Your task to perform on an android device: Open Maps and search for coffee Image 0: 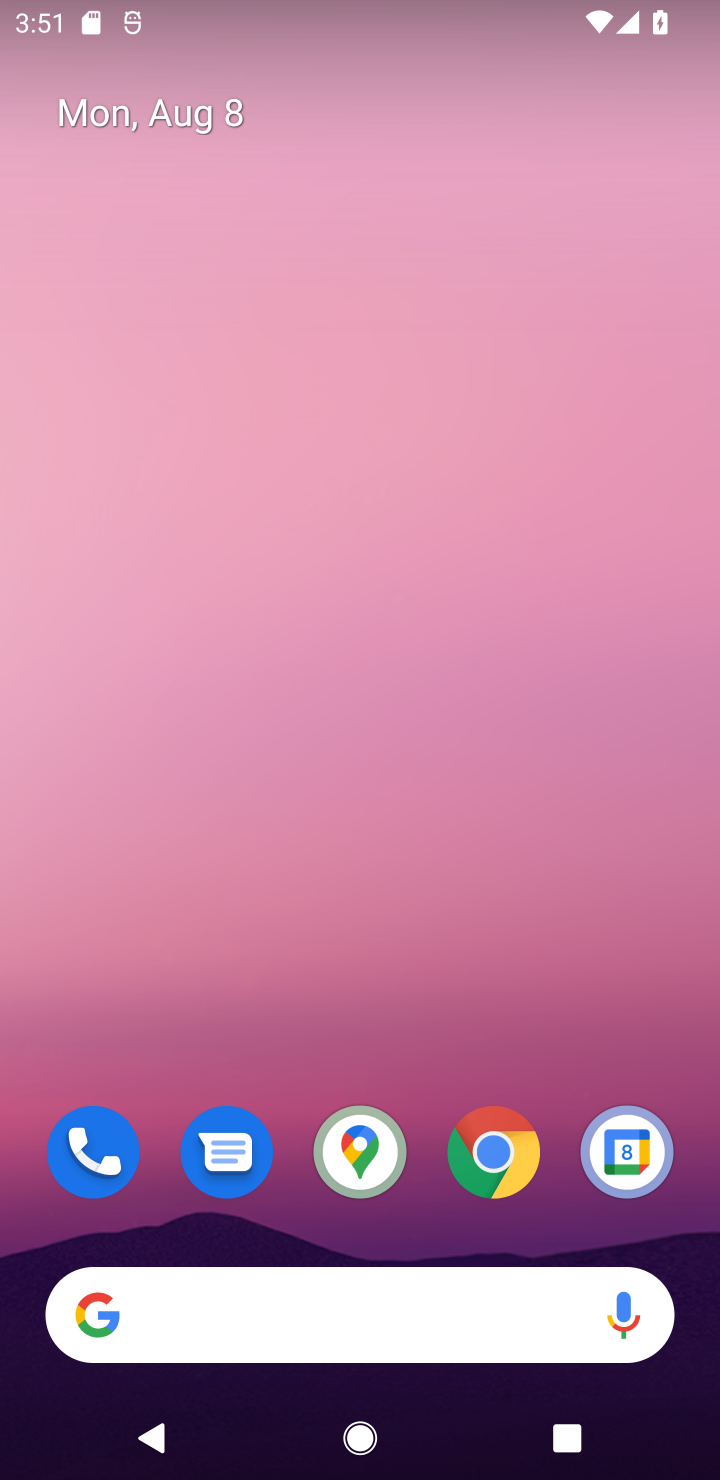
Step 0: click (339, 1159)
Your task to perform on an android device: Open Maps and search for coffee Image 1: 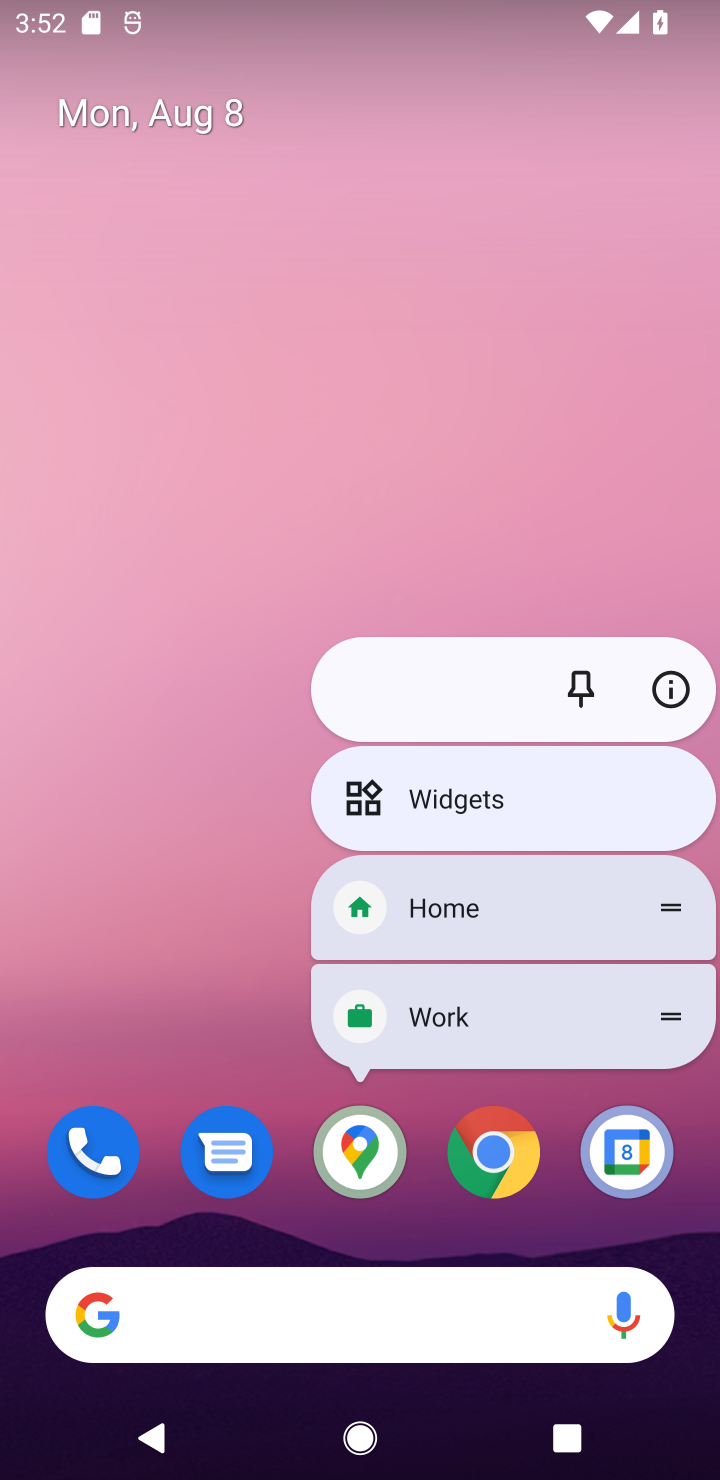
Step 1: click (341, 1153)
Your task to perform on an android device: Open Maps and search for coffee Image 2: 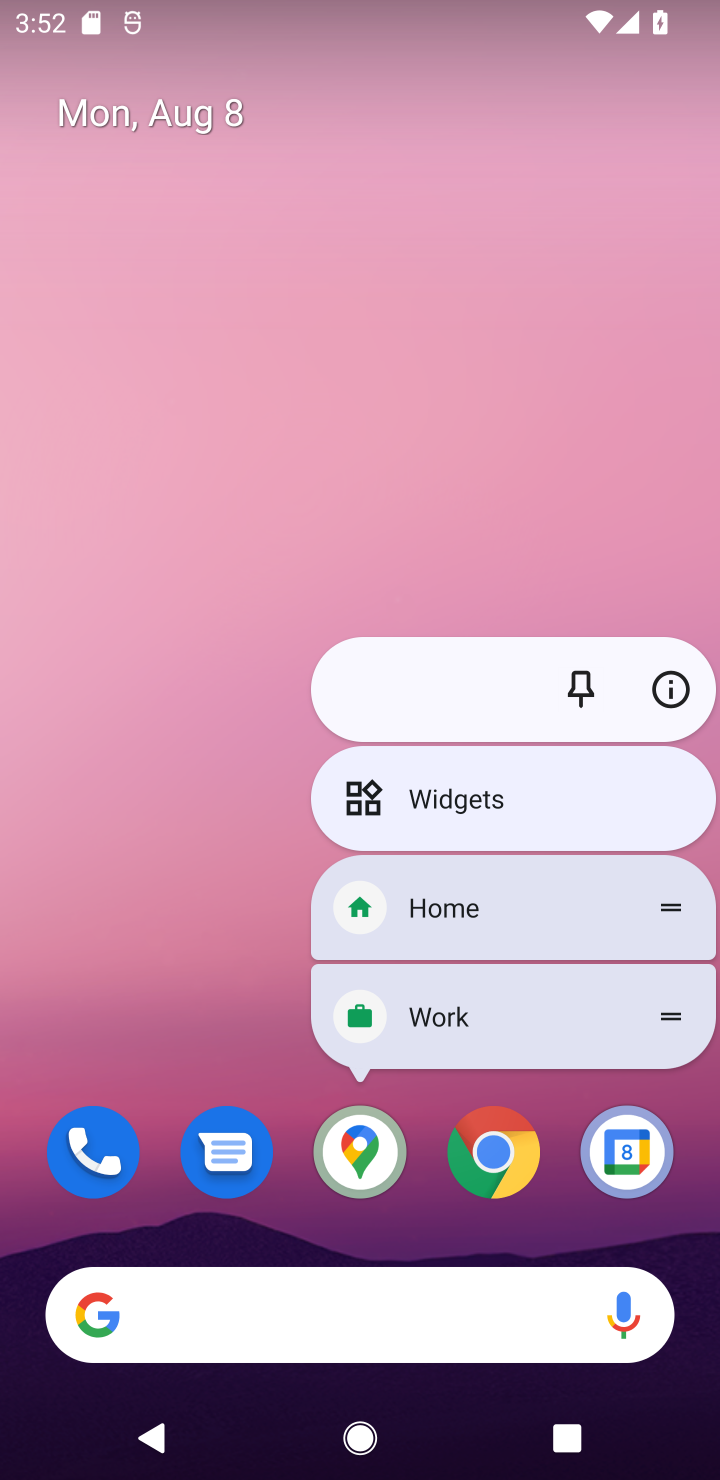
Step 2: click (374, 1168)
Your task to perform on an android device: Open Maps and search for coffee Image 3: 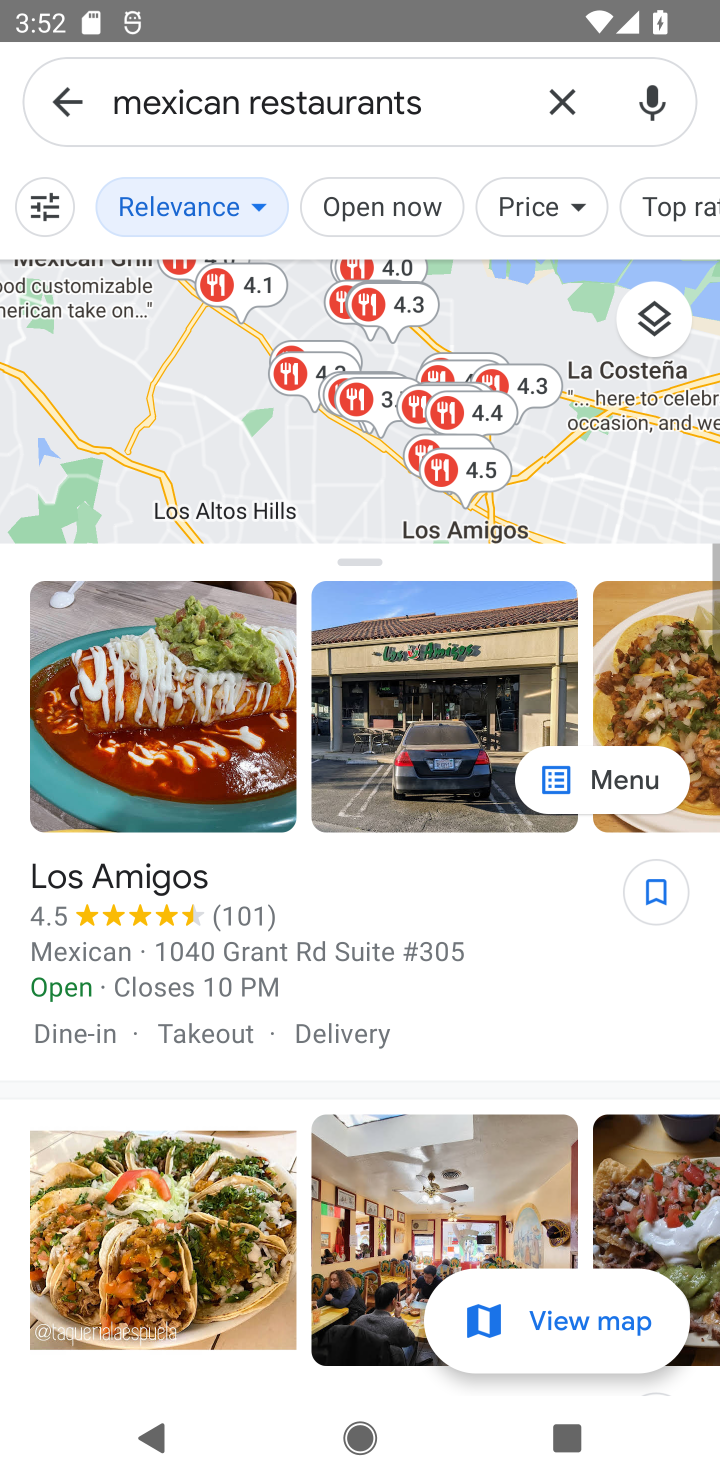
Step 3: click (574, 88)
Your task to perform on an android device: Open Maps and search for coffee Image 4: 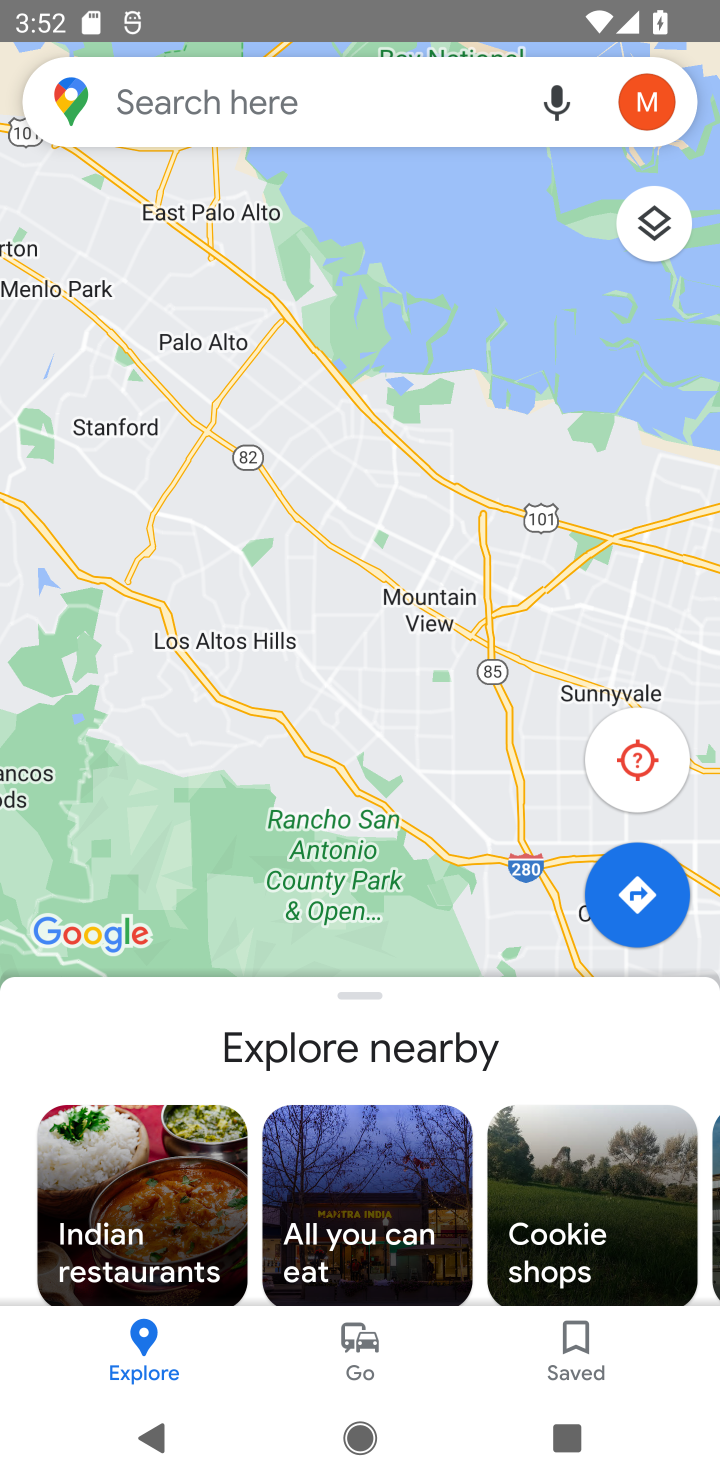
Step 4: click (223, 112)
Your task to perform on an android device: Open Maps and search for coffee Image 5: 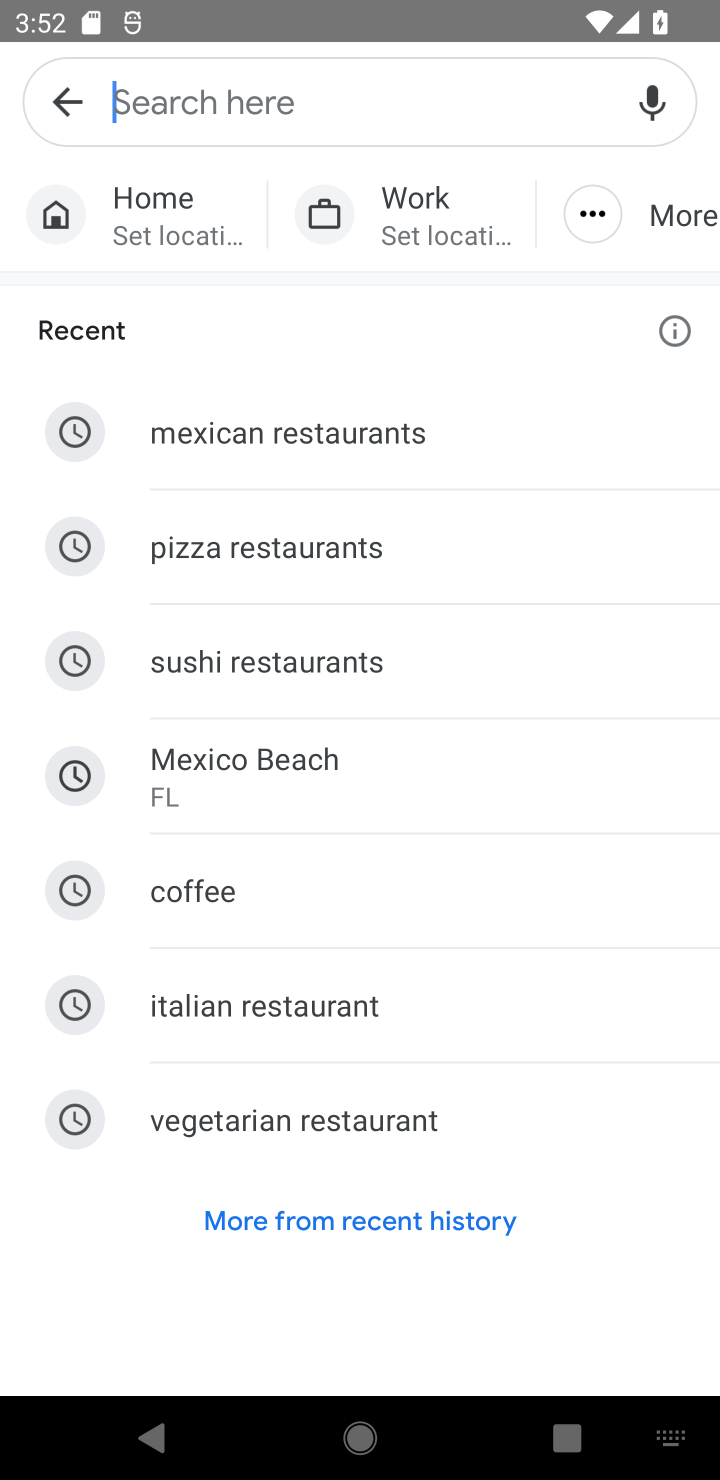
Step 5: type "coffee"
Your task to perform on an android device: Open Maps and search for coffee Image 6: 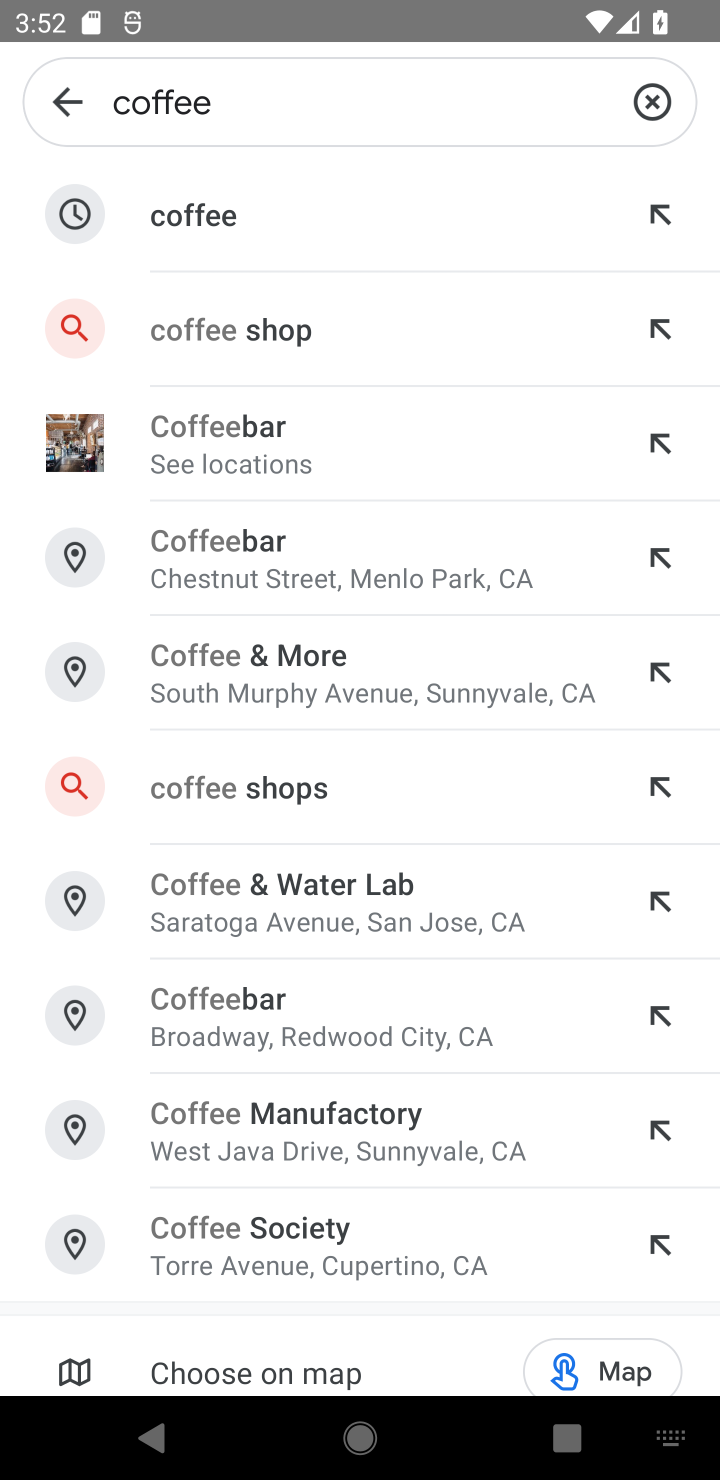
Step 6: click (250, 198)
Your task to perform on an android device: Open Maps and search for coffee Image 7: 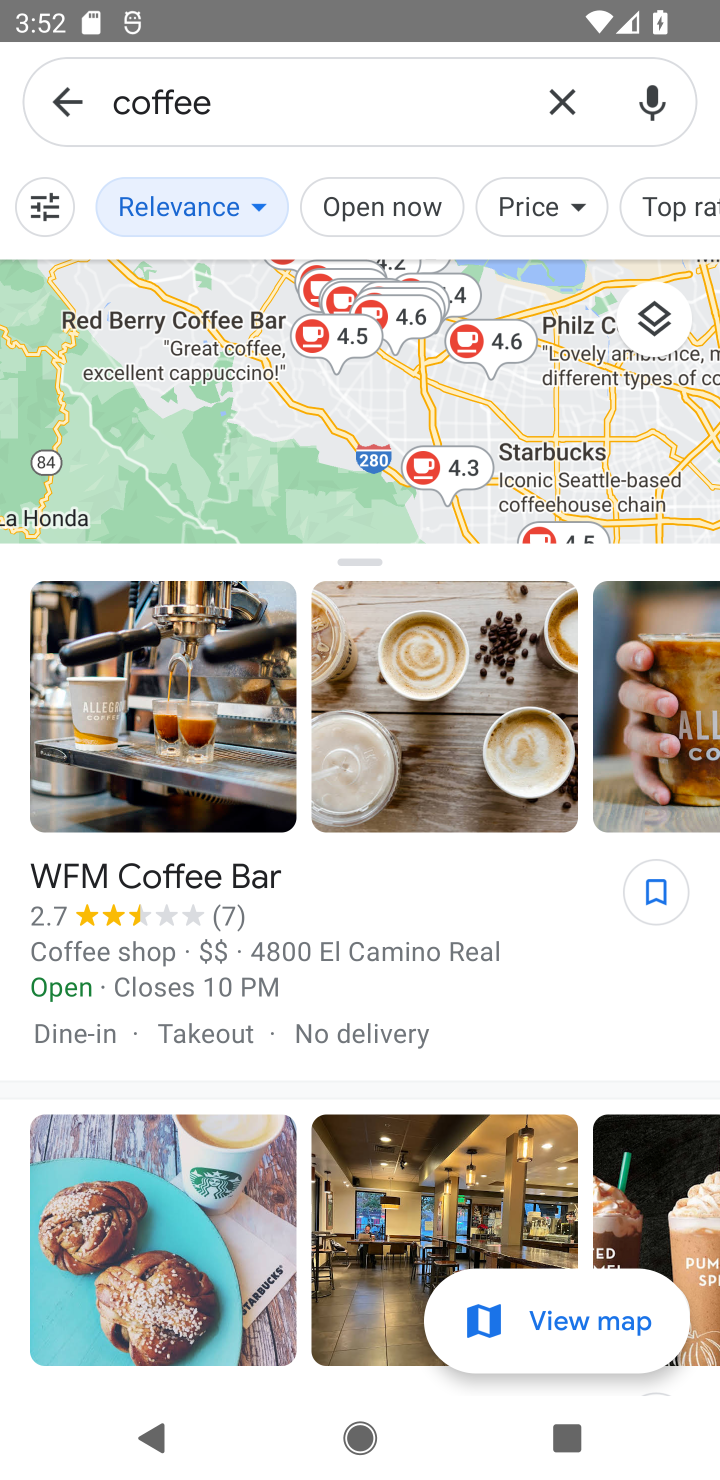
Step 7: task complete